Your task to perform on an android device: Open privacy settings Image 0: 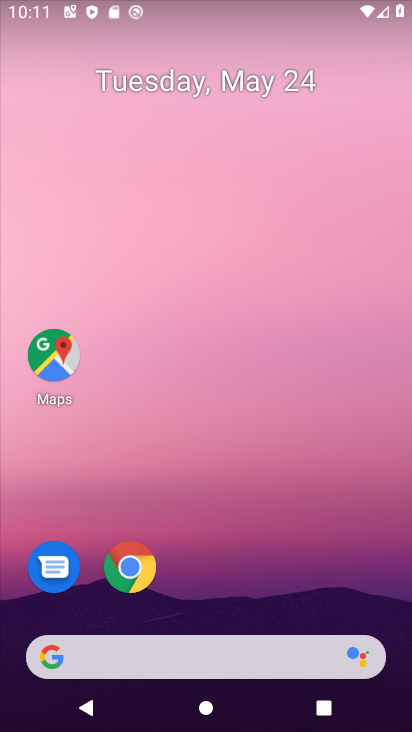
Step 0: drag from (403, 671) to (388, 224)
Your task to perform on an android device: Open privacy settings Image 1: 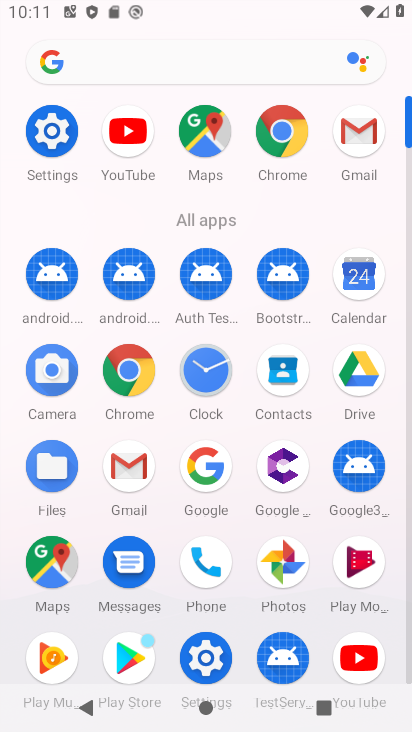
Step 1: click (201, 653)
Your task to perform on an android device: Open privacy settings Image 2: 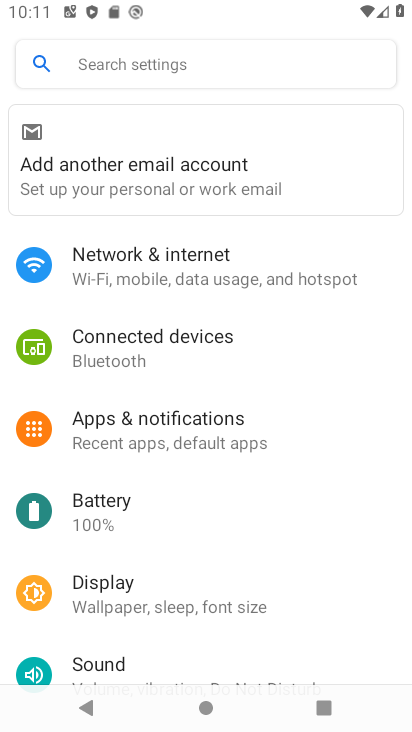
Step 2: drag from (302, 612) to (289, 368)
Your task to perform on an android device: Open privacy settings Image 3: 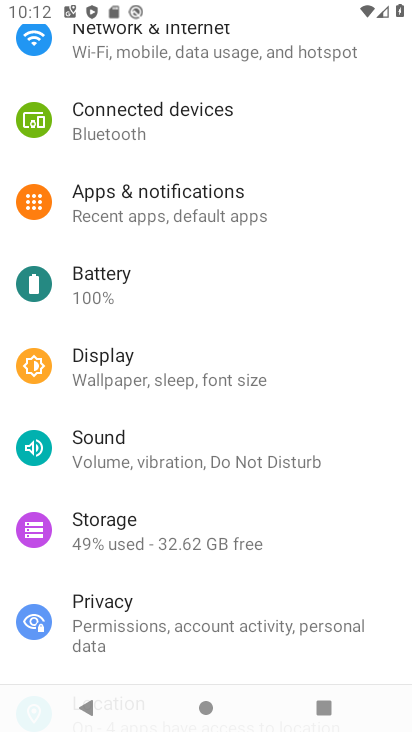
Step 3: click (320, 369)
Your task to perform on an android device: Open privacy settings Image 4: 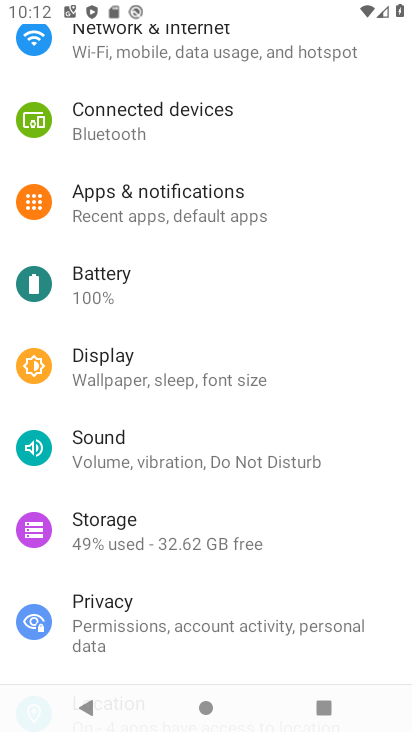
Step 4: press home button
Your task to perform on an android device: Open privacy settings Image 5: 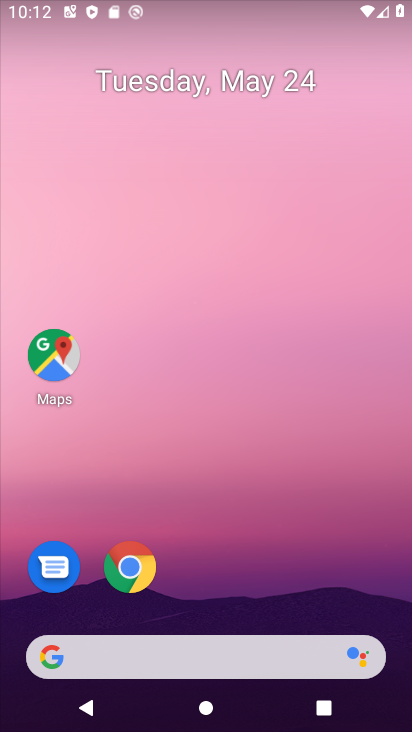
Step 5: click (115, 564)
Your task to perform on an android device: Open privacy settings Image 6: 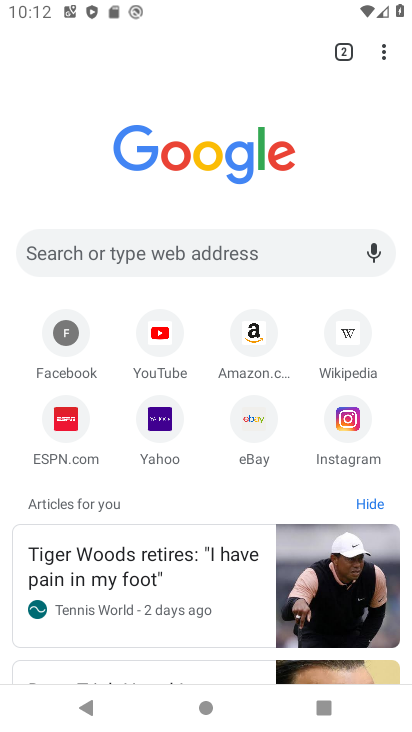
Step 6: click (384, 48)
Your task to perform on an android device: Open privacy settings Image 7: 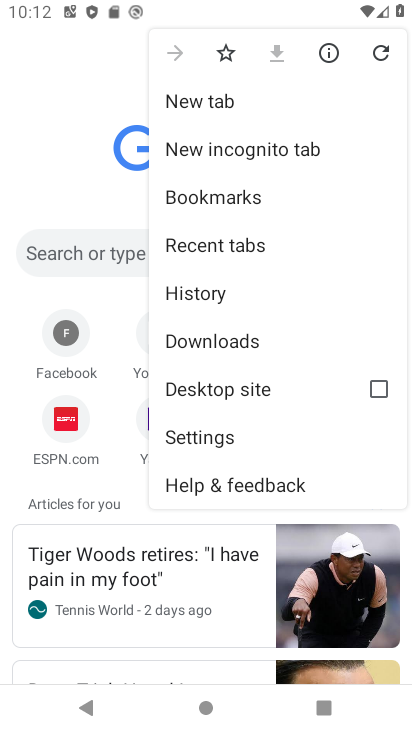
Step 7: drag from (322, 467) to (308, 164)
Your task to perform on an android device: Open privacy settings Image 8: 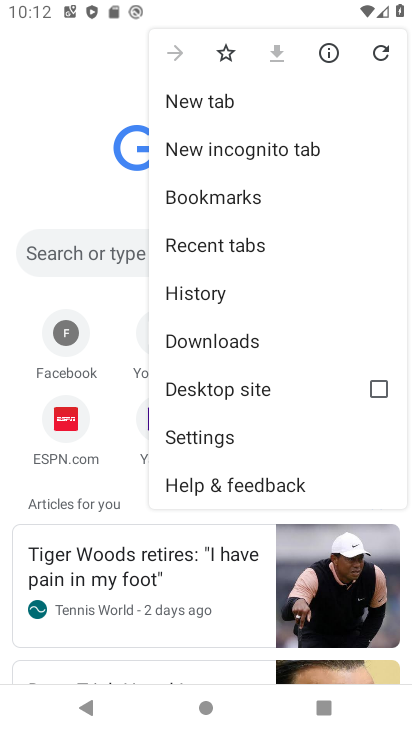
Step 8: click (182, 443)
Your task to perform on an android device: Open privacy settings Image 9: 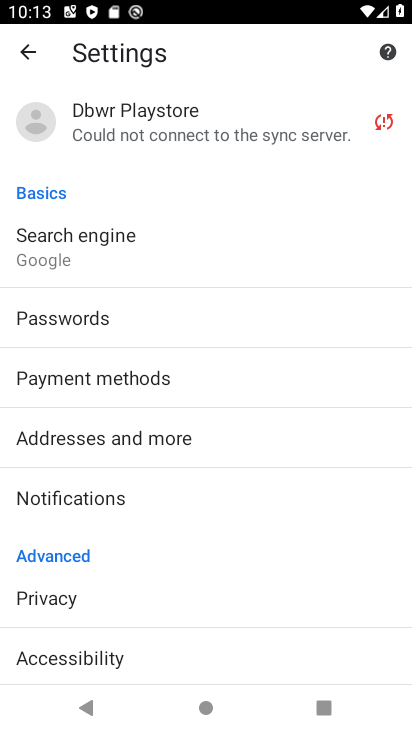
Step 9: click (39, 595)
Your task to perform on an android device: Open privacy settings Image 10: 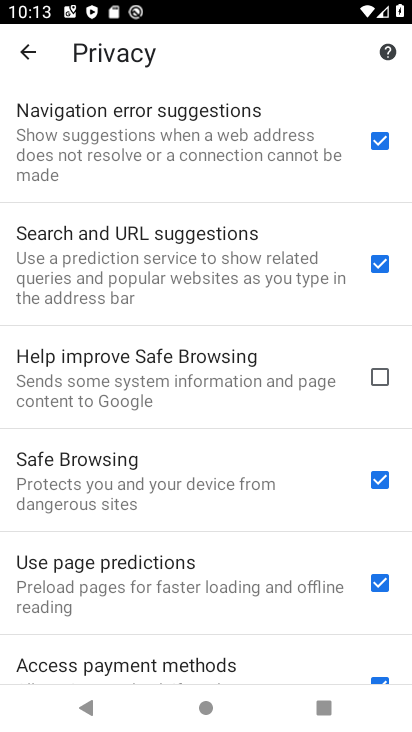
Step 10: task complete